Your task to perform on an android device: Open sound settings Image 0: 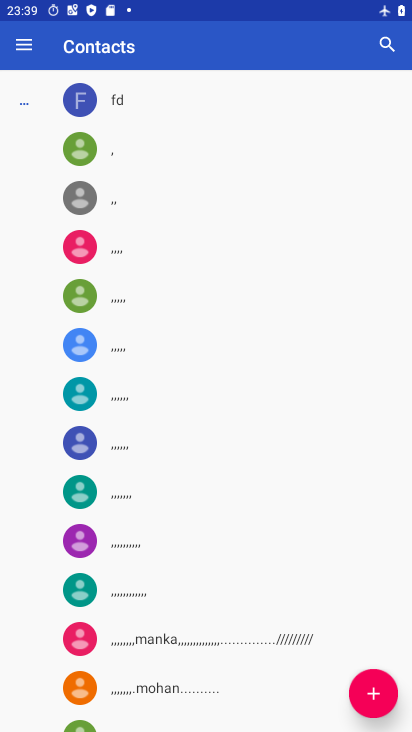
Step 0: press home button
Your task to perform on an android device: Open sound settings Image 1: 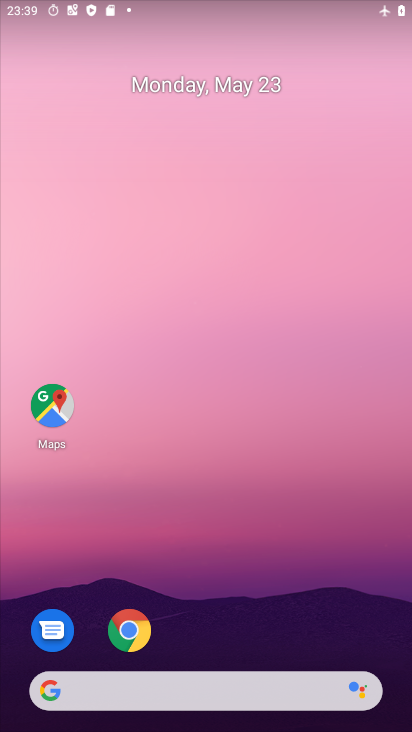
Step 1: drag from (260, 658) to (276, 6)
Your task to perform on an android device: Open sound settings Image 2: 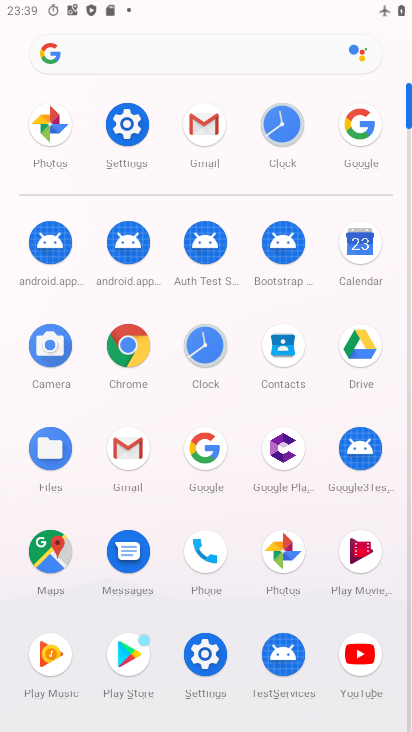
Step 2: click (116, 130)
Your task to perform on an android device: Open sound settings Image 3: 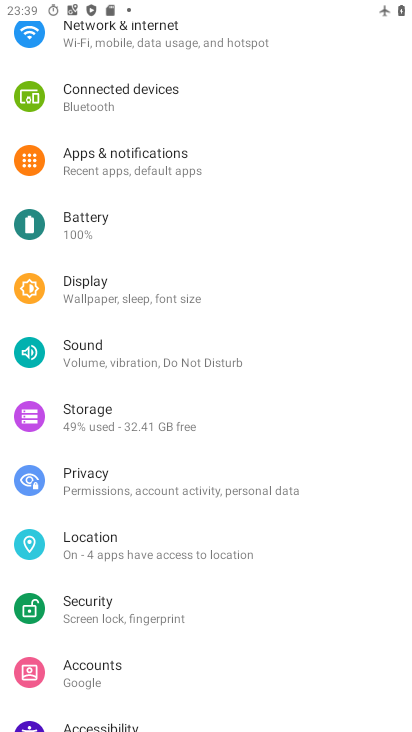
Step 3: click (70, 359)
Your task to perform on an android device: Open sound settings Image 4: 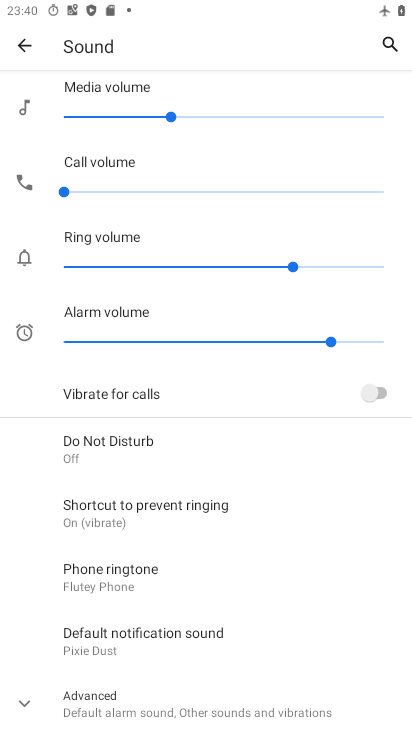
Step 4: task complete